Your task to perform on an android device: Search for alienware aurora on costco, select the first entry, add it to the cart, then select checkout. Image 0: 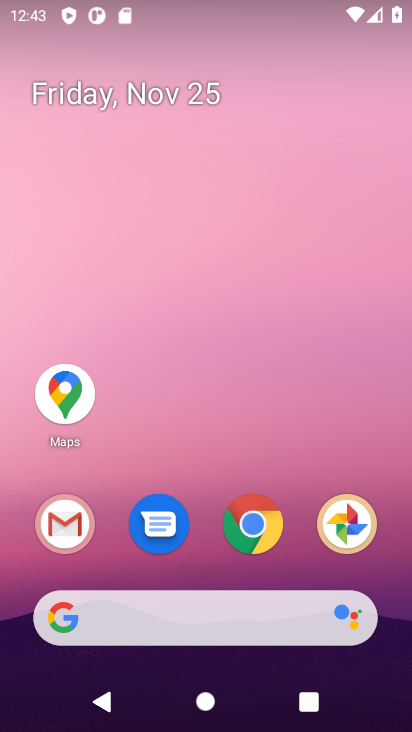
Step 0: click (257, 539)
Your task to perform on an android device: Search for alienware aurora on costco, select the first entry, add it to the cart, then select checkout. Image 1: 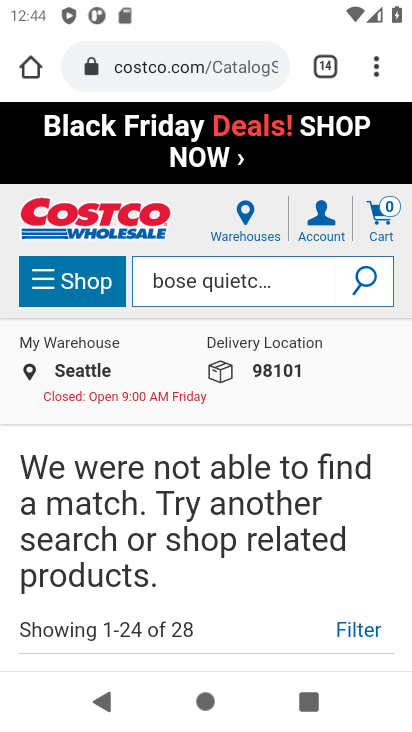
Step 1: click (266, 281)
Your task to perform on an android device: Search for alienware aurora on costco, select the first entry, add it to the cart, then select checkout. Image 2: 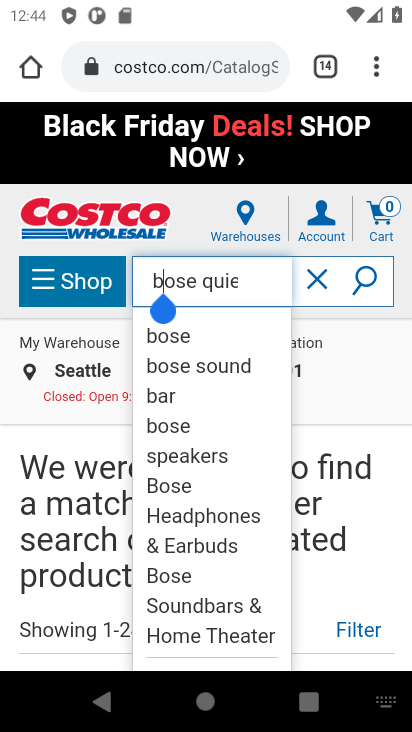
Step 2: click (309, 277)
Your task to perform on an android device: Search for alienware aurora on costco, select the first entry, add it to the cart, then select checkout. Image 3: 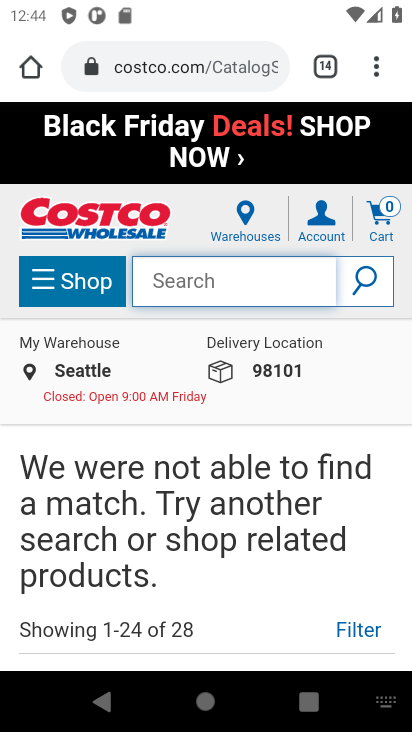
Step 3: type "alienware aurora"
Your task to perform on an android device: Search for alienware aurora on costco, select the first entry, add it to the cart, then select checkout. Image 4: 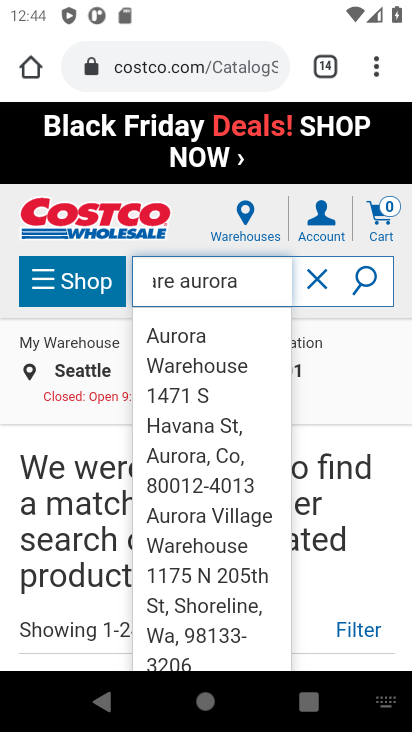
Step 4: click (357, 279)
Your task to perform on an android device: Search for alienware aurora on costco, select the first entry, add it to the cart, then select checkout. Image 5: 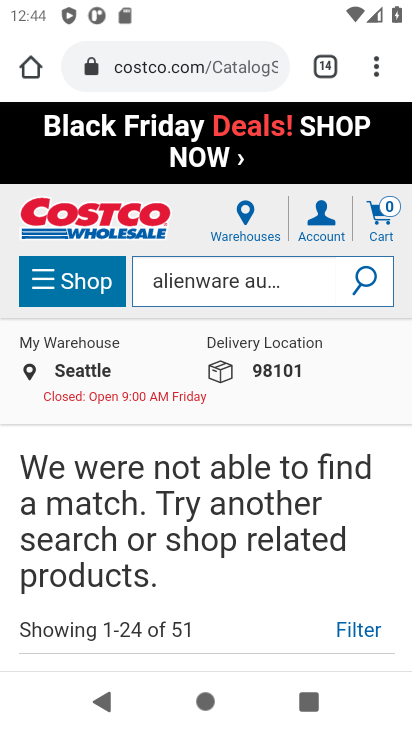
Step 5: task complete